Your task to perform on an android device: Search for usb-a on amazon.com, select the first entry, and add it to the cart. Image 0: 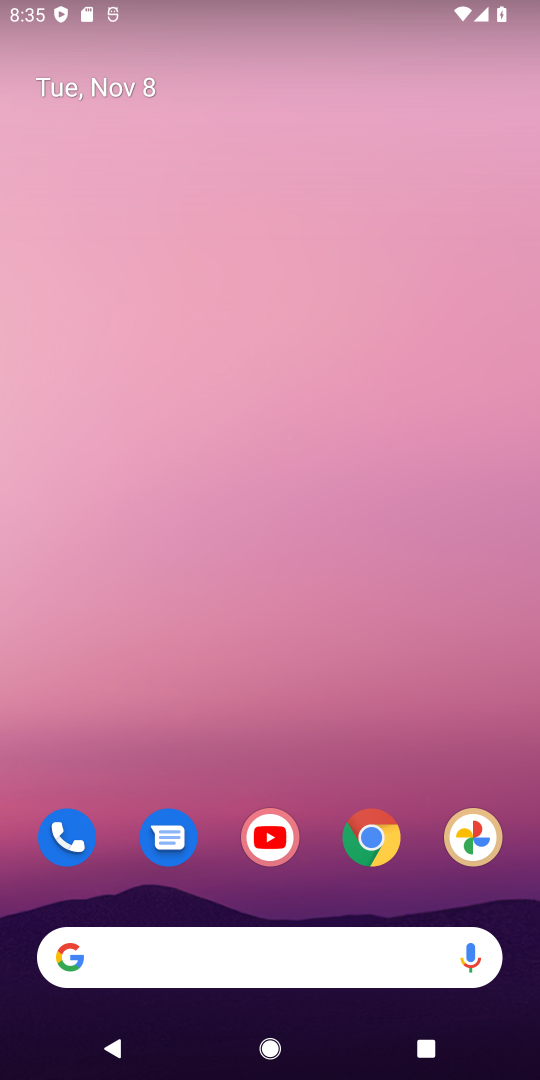
Step 0: click (362, 835)
Your task to perform on an android device: Search for usb-a on amazon.com, select the first entry, and add it to the cart. Image 1: 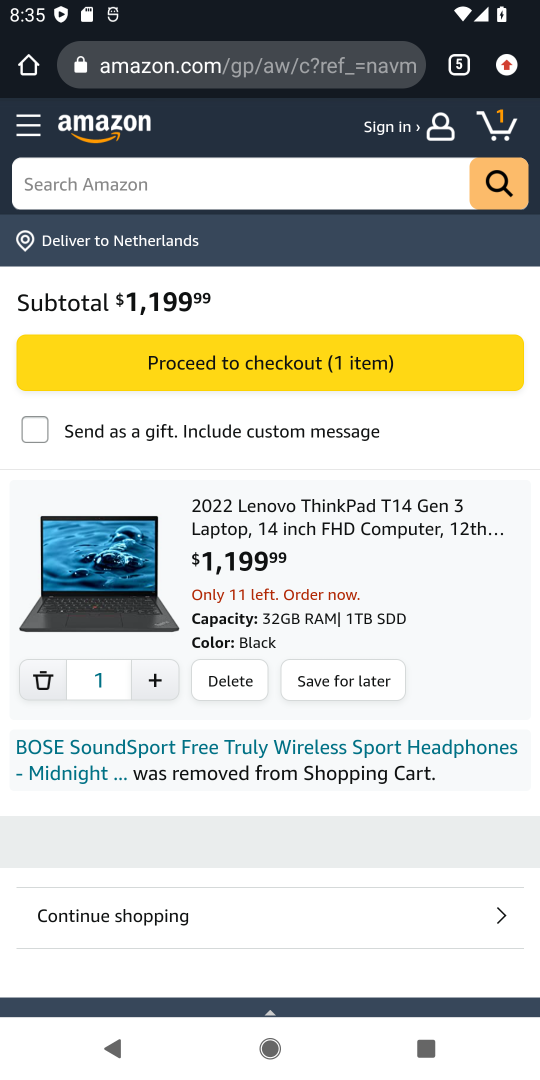
Step 1: click (150, 174)
Your task to perform on an android device: Search for usb-a on amazon.com, select the first entry, and add it to the cart. Image 2: 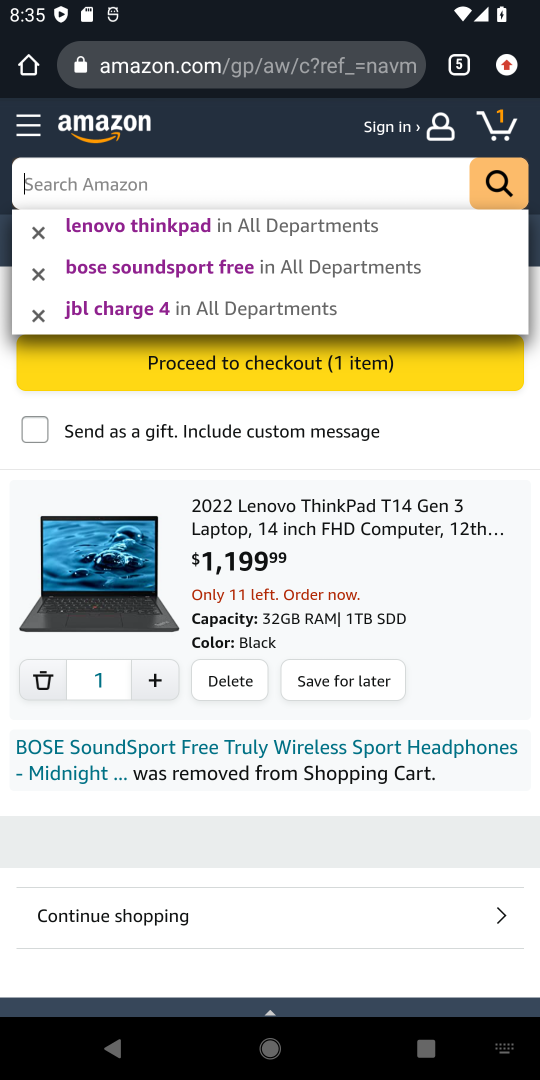
Step 2: type "usb-a"
Your task to perform on an android device: Search for usb-a on amazon.com, select the first entry, and add it to the cart. Image 3: 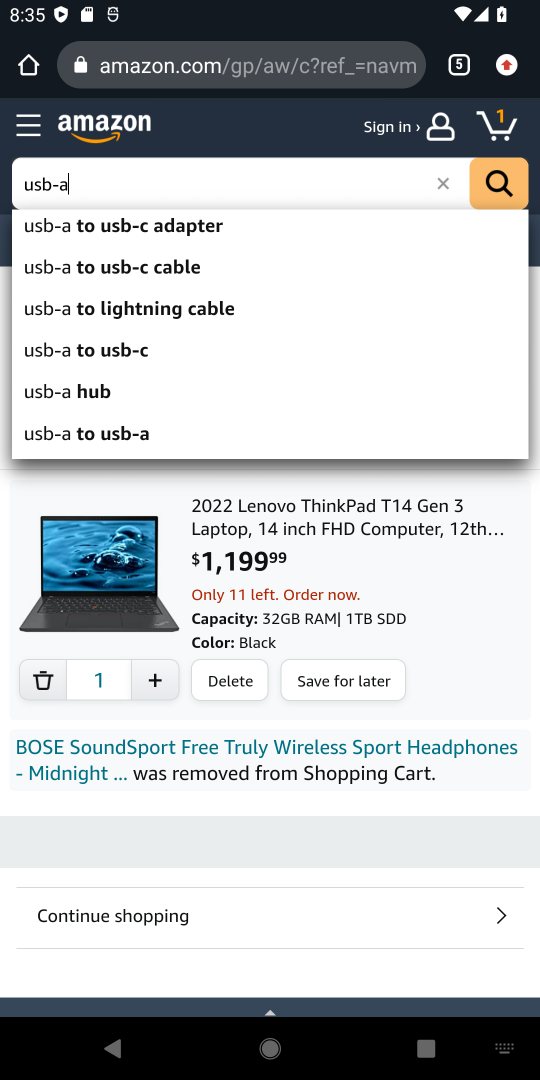
Step 3: click (93, 392)
Your task to perform on an android device: Search for usb-a on amazon.com, select the first entry, and add it to the cart. Image 4: 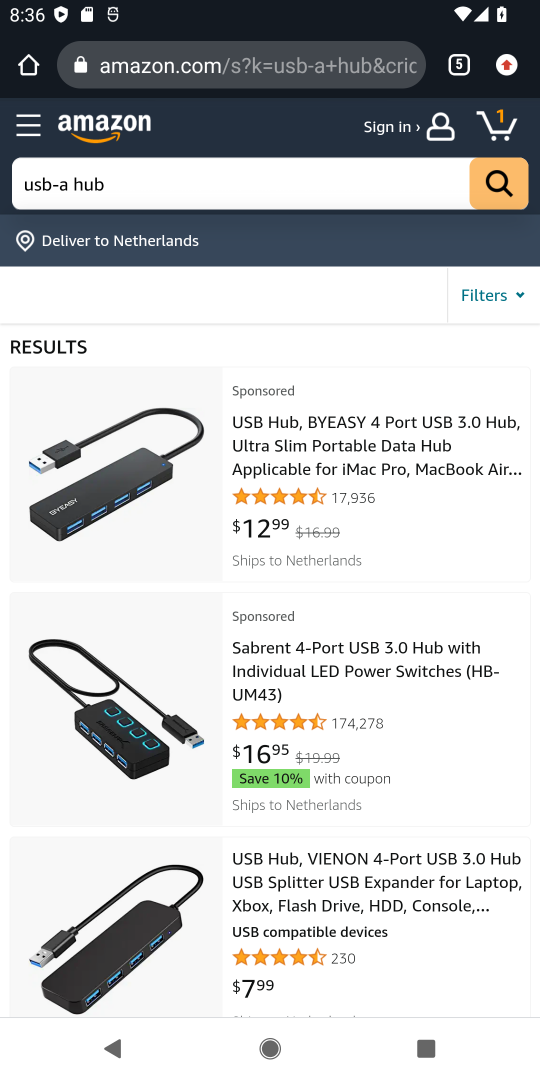
Step 4: click (344, 454)
Your task to perform on an android device: Search for usb-a on amazon.com, select the first entry, and add it to the cart. Image 5: 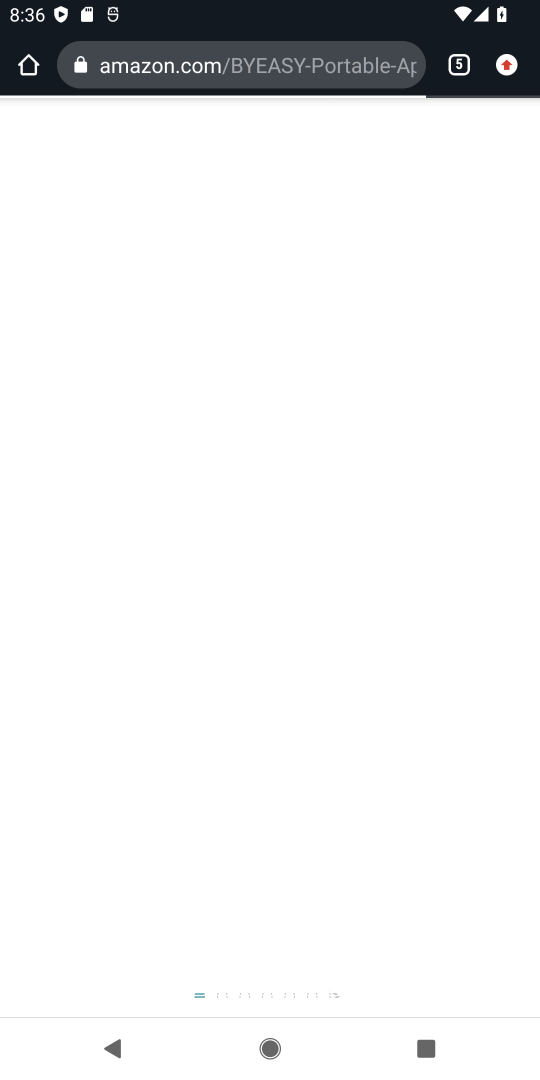
Step 5: drag from (299, 898) to (296, 308)
Your task to perform on an android device: Search for usb-a on amazon.com, select the first entry, and add it to the cart. Image 6: 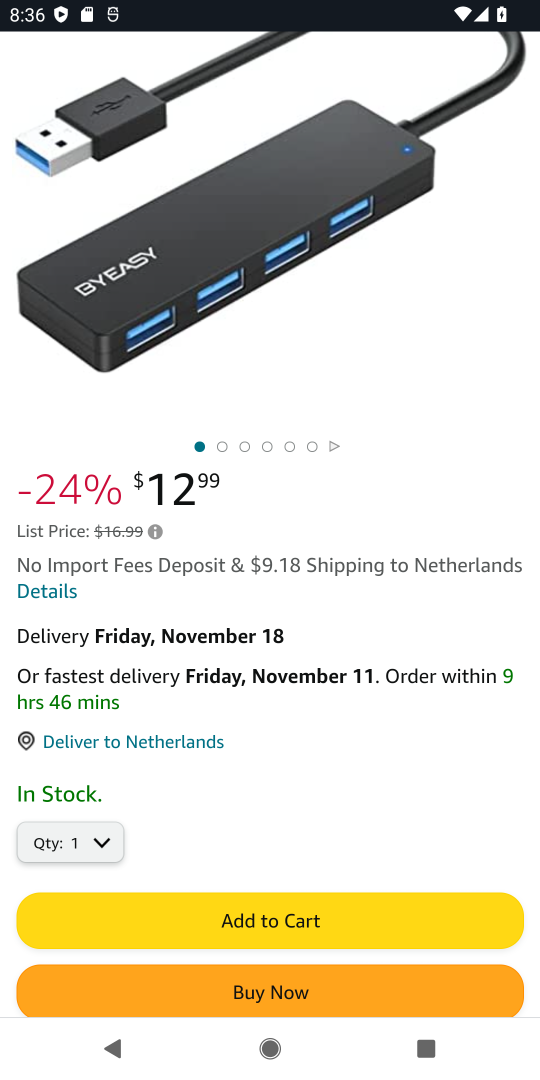
Step 6: click (320, 922)
Your task to perform on an android device: Search for usb-a on amazon.com, select the first entry, and add it to the cart. Image 7: 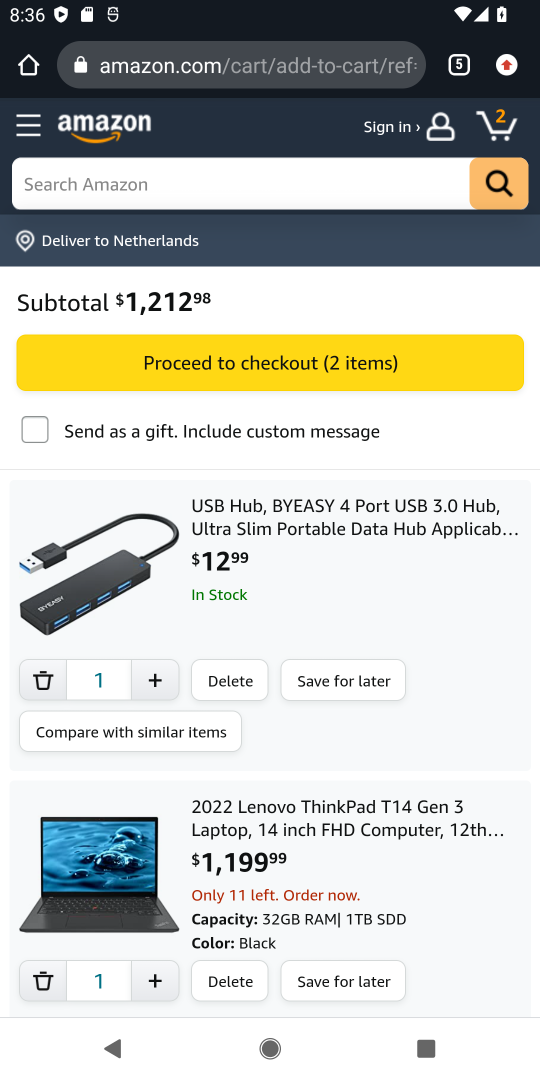
Step 7: task complete